Your task to perform on an android device: turn on sleep mode Image 0: 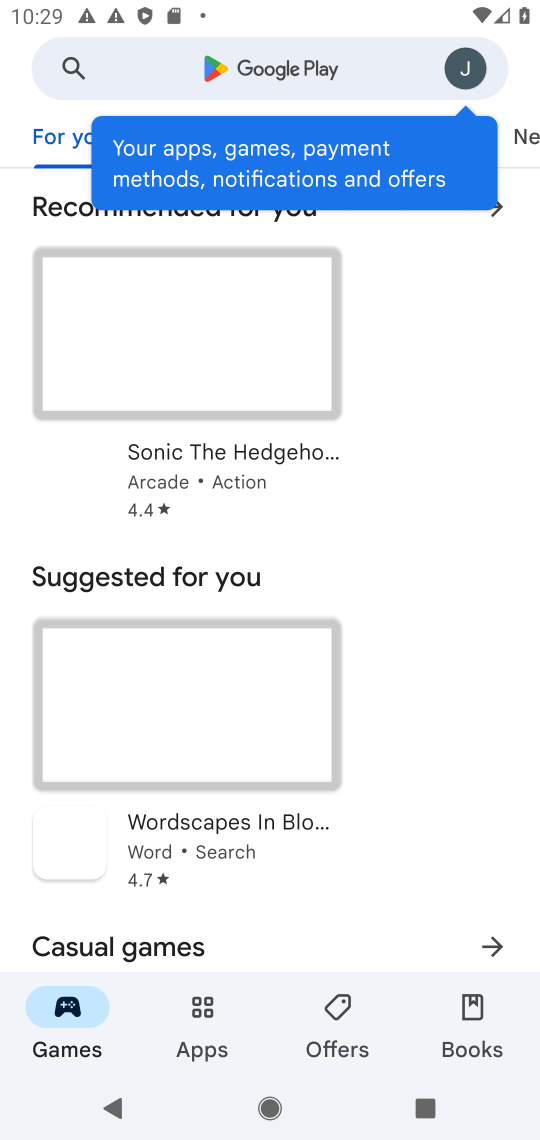
Step 0: press home button
Your task to perform on an android device: turn on sleep mode Image 1: 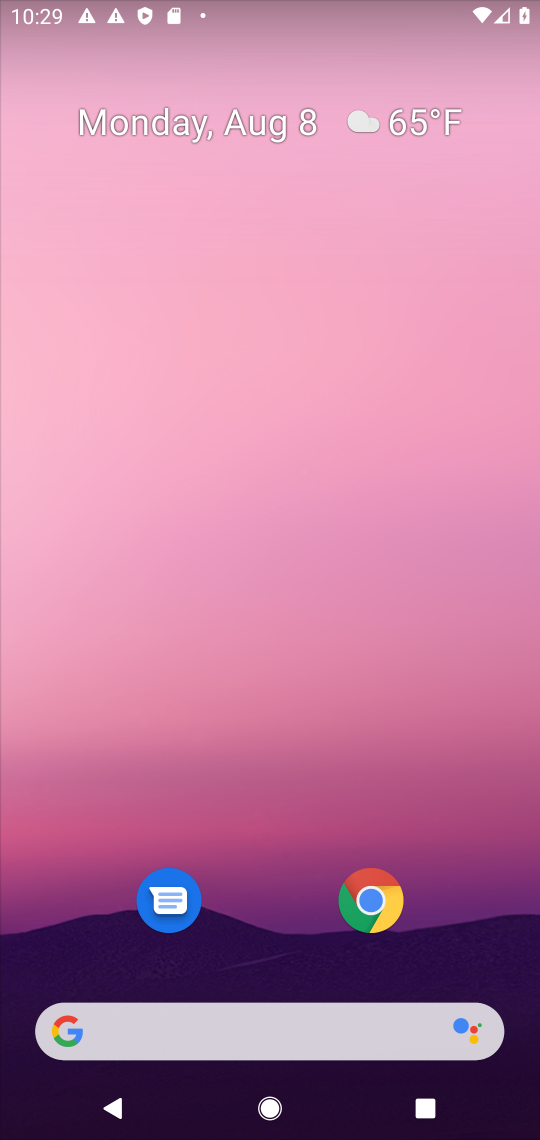
Step 1: drag from (260, 817) to (339, 189)
Your task to perform on an android device: turn on sleep mode Image 2: 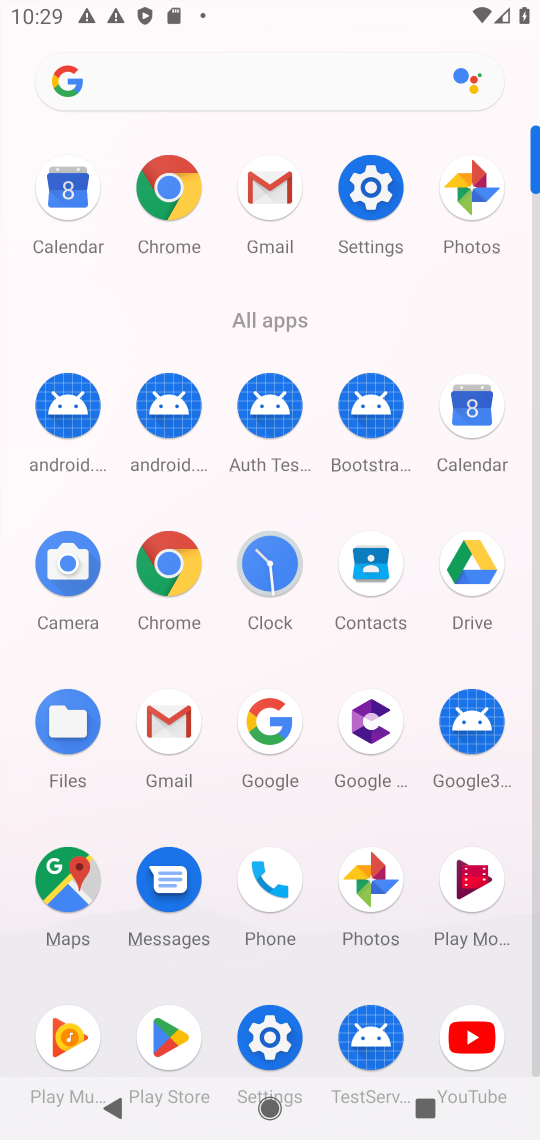
Step 2: click (369, 191)
Your task to perform on an android device: turn on sleep mode Image 3: 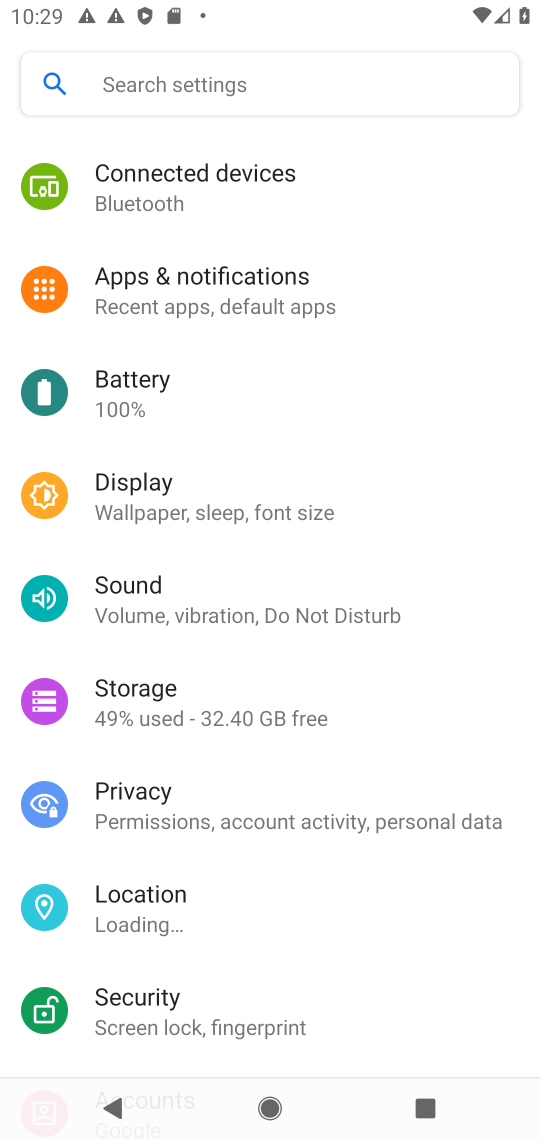
Step 3: task complete